Your task to perform on an android device: turn off wifi Image 0: 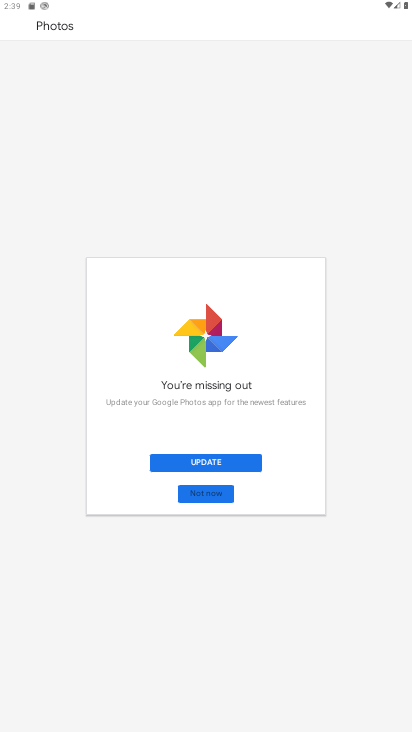
Step 0: press home button
Your task to perform on an android device: turn off wifi Image 1: 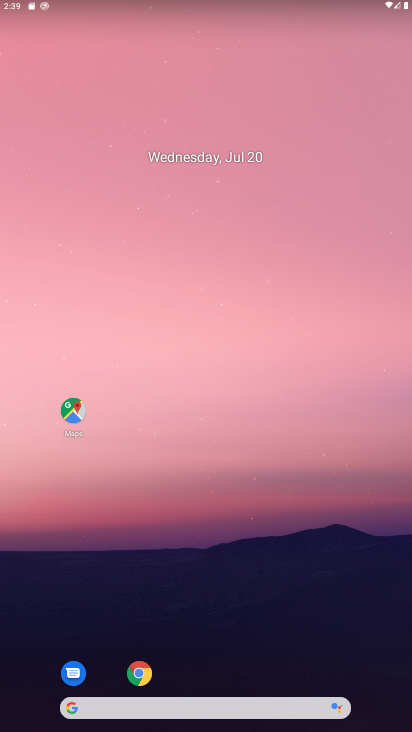
Step 1: drag from (194, 646) to (224, 80)
Your task to perform on an android device: turn off wifi Image 2: 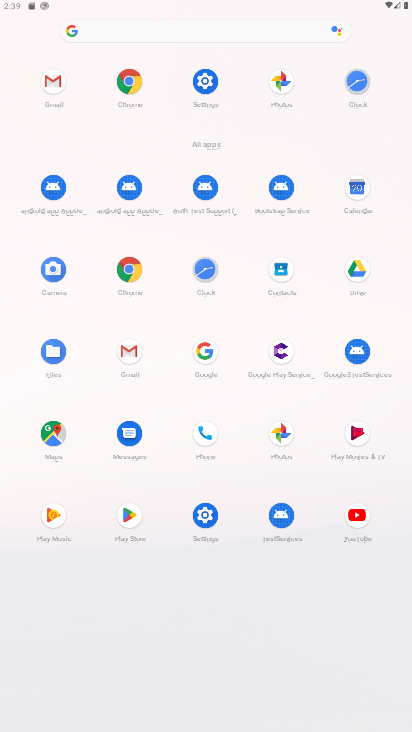
Step 2: click (213, 522)
Your task to perform on an android device: turn off wifi Image 3: 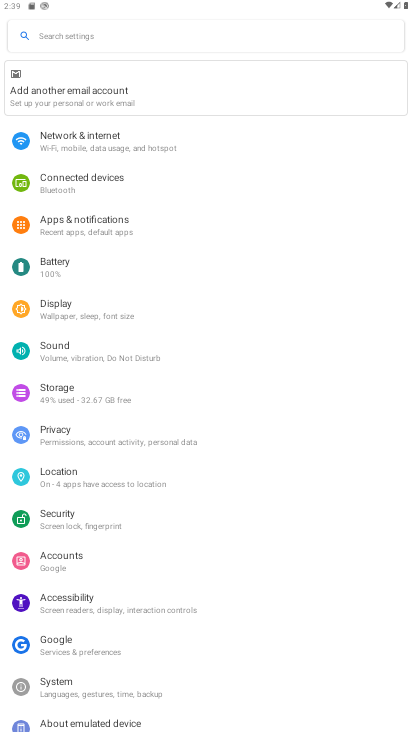
Step 3: click (115, 146)
Your task to perform on an android device: turn off wifi Image 4: 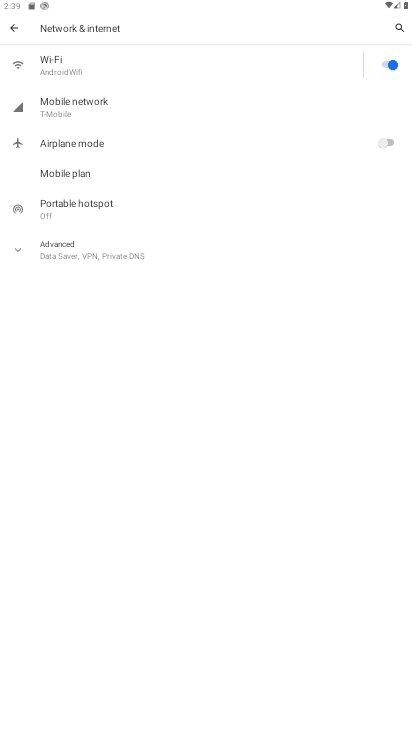
Step 4: click (377, 58)
Your task to perform on an android device: turn off wifi Image 5: 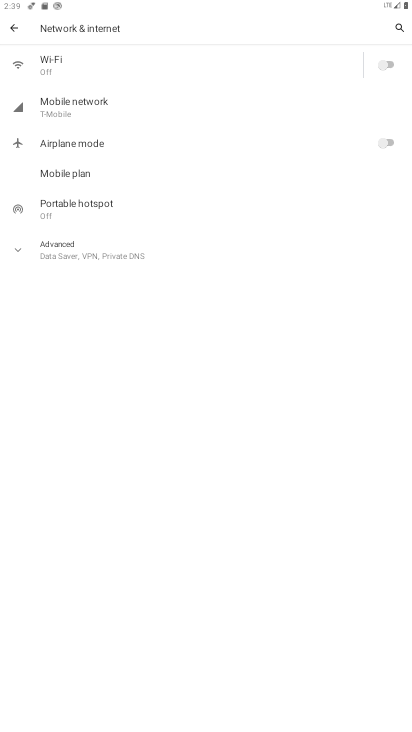
Step 5: task complete